Your task to perform on an android device: remove spam from my inbox in the gmail app Image 0: 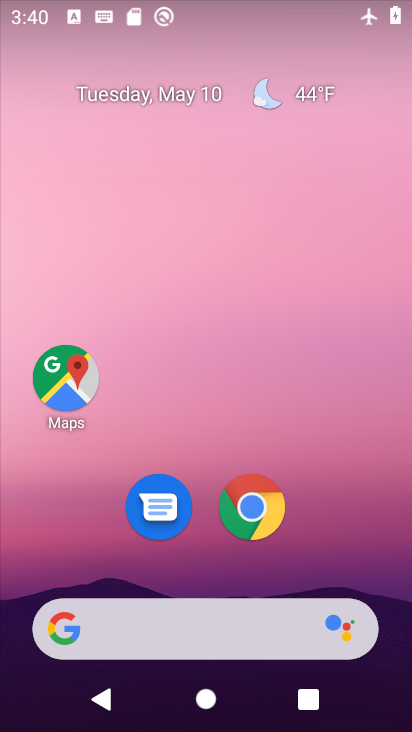
Step 0: drag from (224, 539) to (216, 273)
Your task to perform on an android device: remove spam from my inbox in the gmail app Image 1: 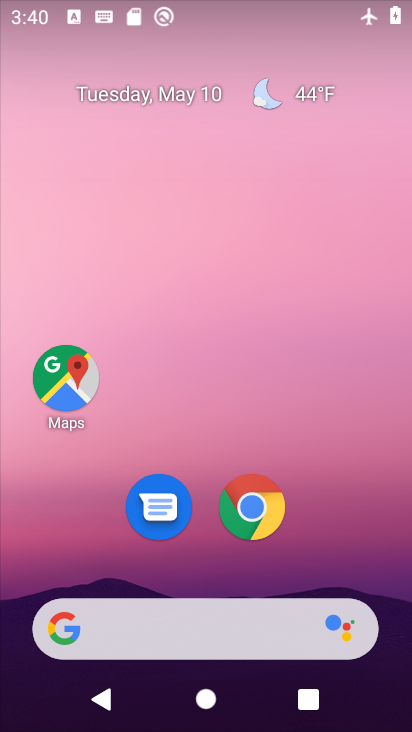
Step 1: drag from (203, 561) to (235, 193)
Your task to perform on an android device: remove spam from my inbox in the gmail app Image 2: 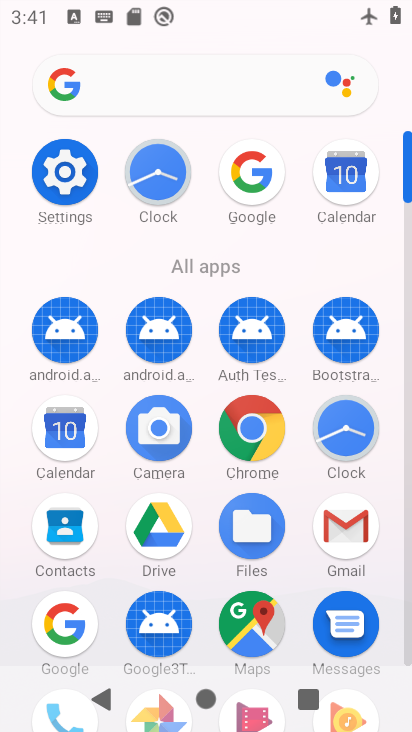
Step 2: click (345, 534)
Your task to perform on an android device: remove spam from my inbox in the gmail app Image 3: 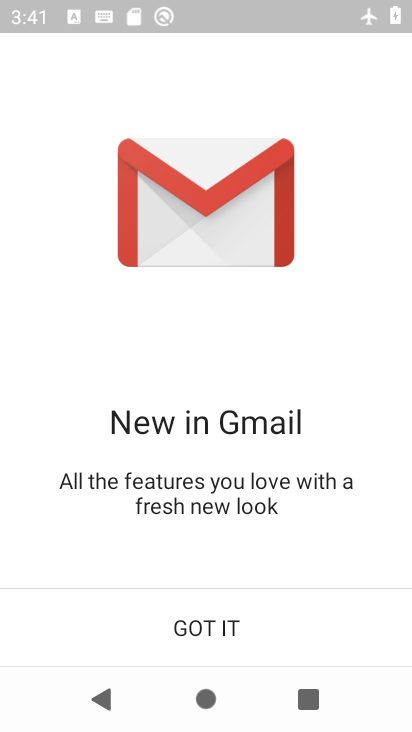
Step 3: click (211, 634)
Your task to perform on an android device: remove spam from my inbox in the gmail app Image 4: 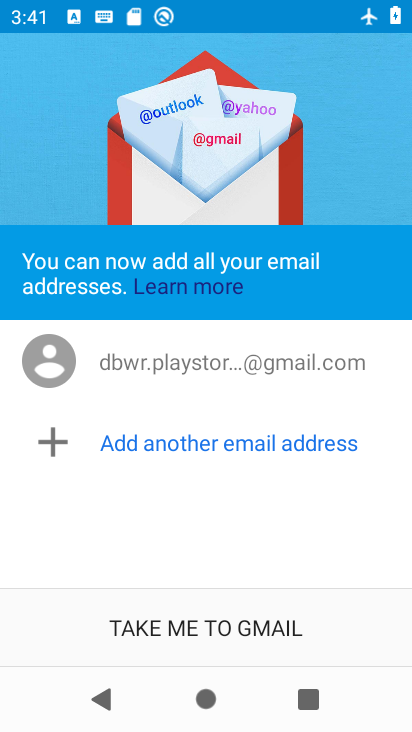
Step 4: click (214, 623)
Your task to perform on an android device: remove spam from my inbox in the gmail app Image 5: 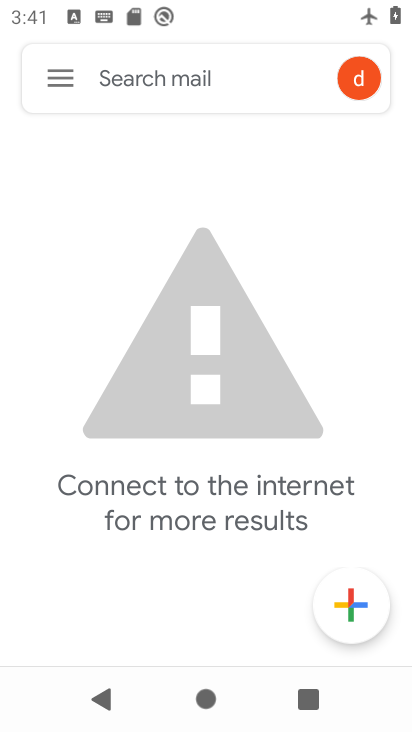
Step 5: click (49, 89)
Your task to perform on an android device: remove spam from my inbox in the gmail app Image 6: 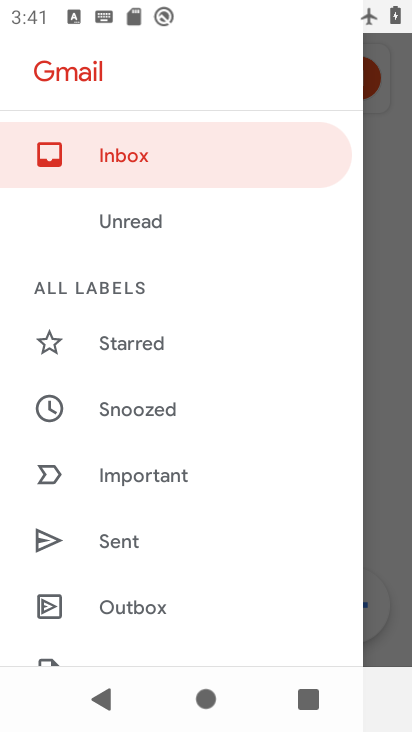
Step 6: drag from (155, 562) to (161, 259)
Your task to perform on an android device: remove spam from my inbox in the gmail app Image 7: 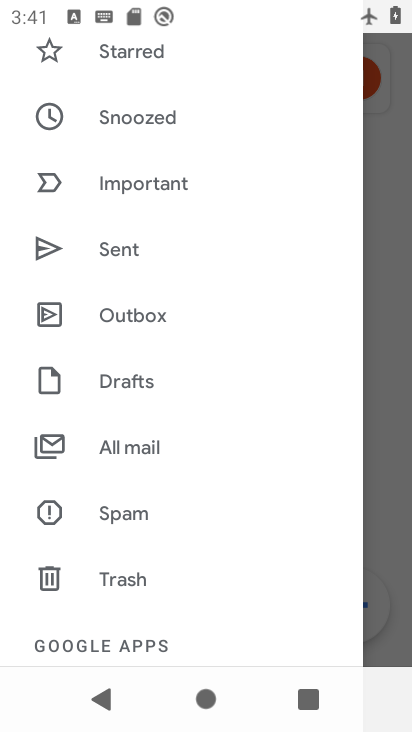
Step 7: click (131, 521)
Your task to perform on an android device: remove spam from my inbox in the gmail app Image 8: 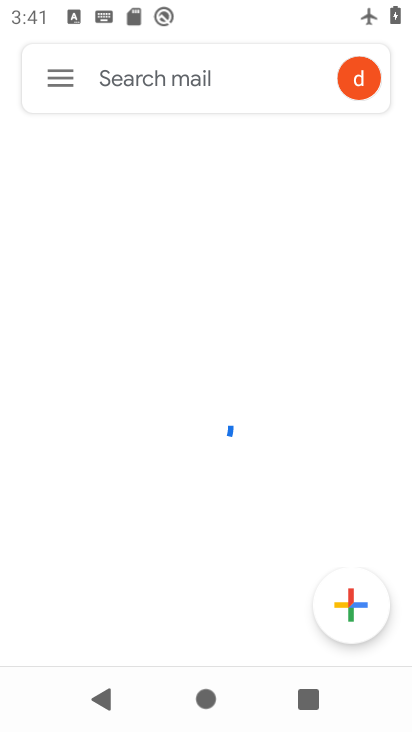
Step 8: task complete